Your task to perform on an android device: Turn on the flashlight Image 0: 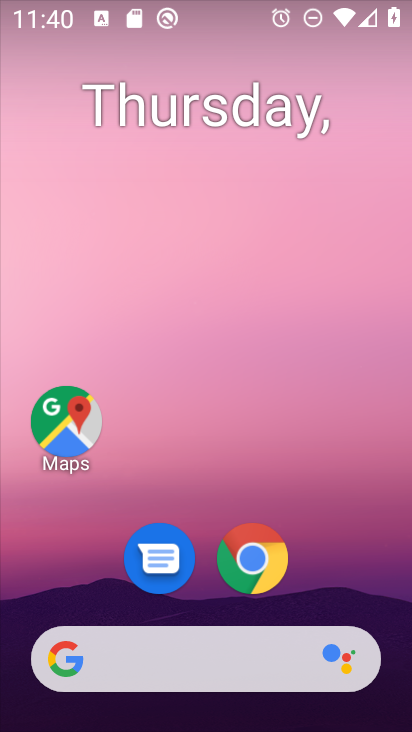
Step 0: drag from (209, 14) to (186, 632)
Your task to perform on an android device: Turn on the flashlight Image 1: 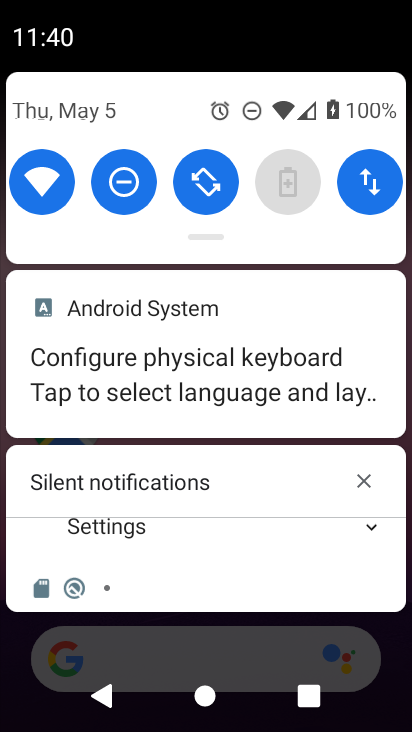
Step 1: drag from (200, 230) to (189, 499)
Your task to perform on an android device: Turn on the flashlight Image 2: 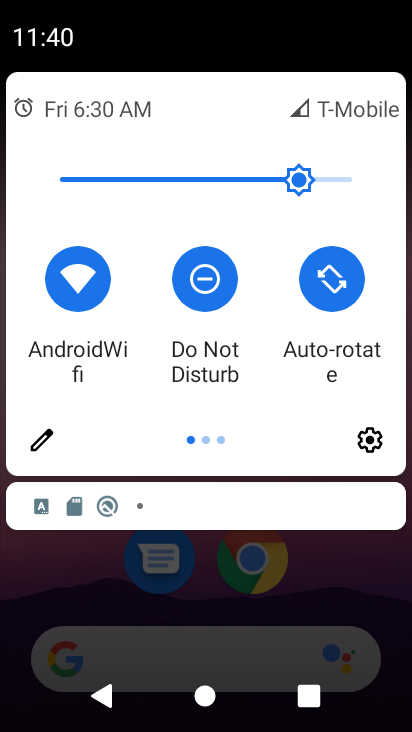
Step 2: click (35, 432)
Your task to perform on an android device: Turn on the flashlight Image 3: 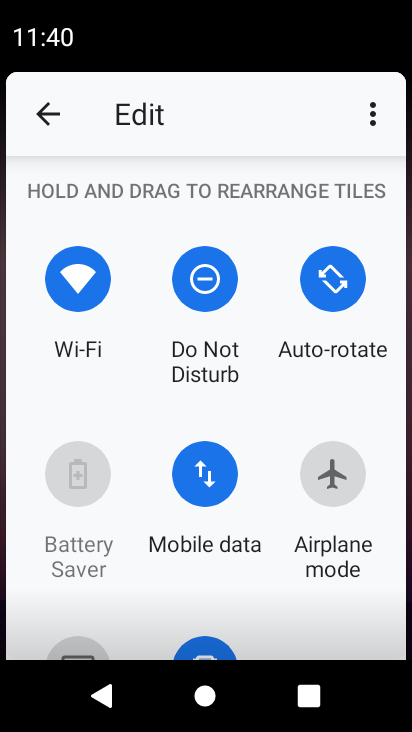
Step 3: task complete